Your task to perform on an android device: turn on the 12-hour format for clock Image 0: 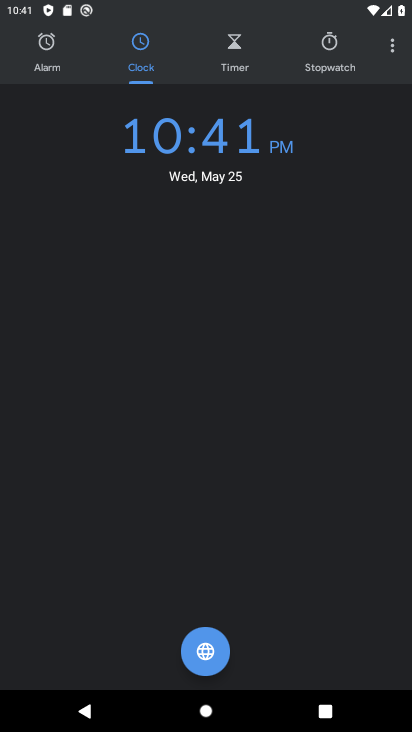
Step 0: click (387, 50)
Your task to perform on an android device: turn on the 12-hour format for clock Image 1: 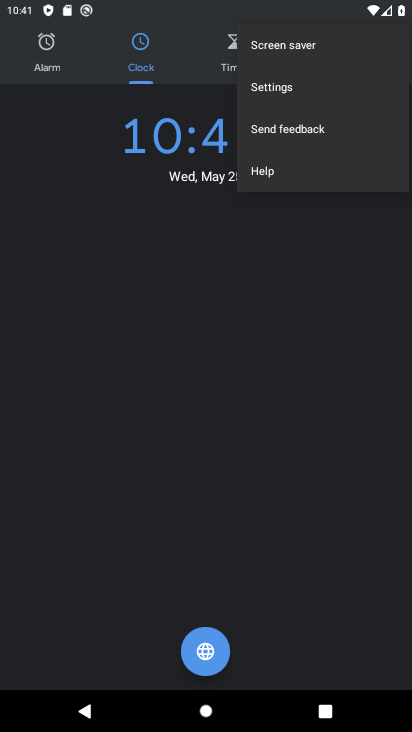
Step 1: click (303, 84)
Your task to perform on an android device: turn on the 12-hour format for clock Image 2: 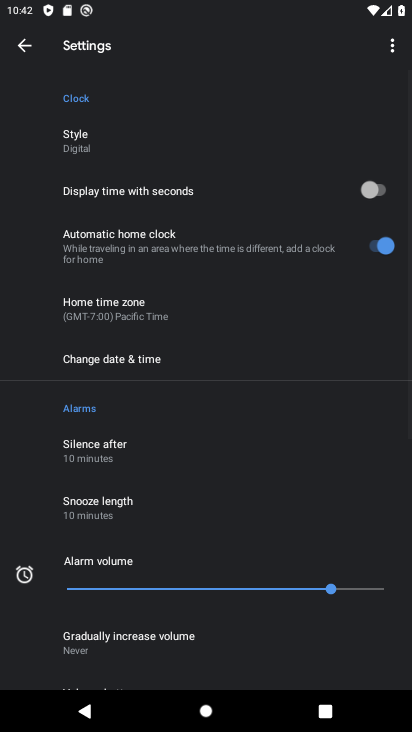
Step 2: click (159, 371)
Your task to perform on an android device: turn on the 12-hour format for clock Image 3: 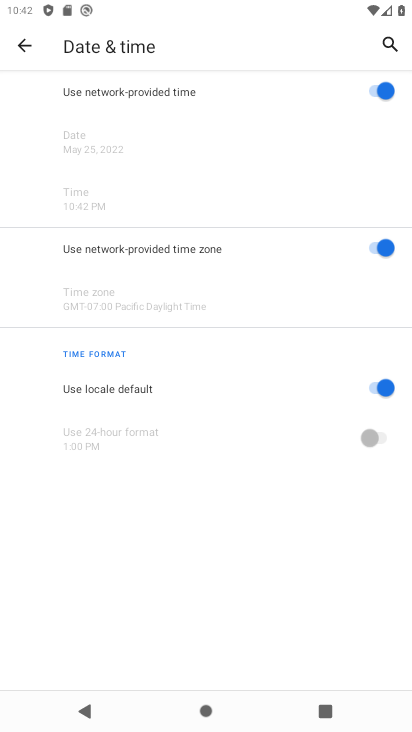
Step 3: task complete